Your task to perform on an android device: Open wifi settings Image 0: 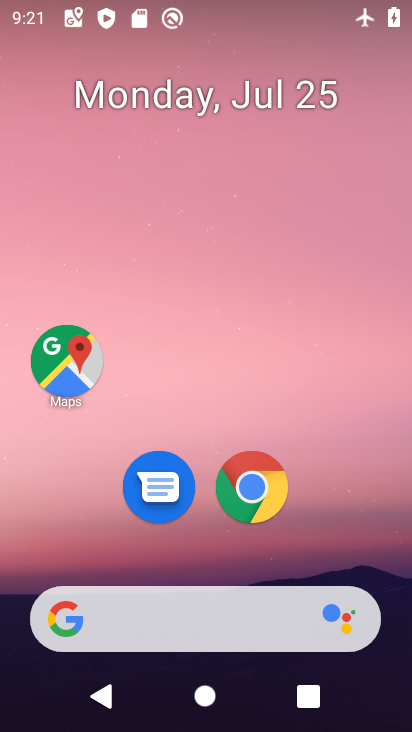
Step 0: drag from (178, 17) to (145, 612)
Your task to perform on an android device: Open wifi settings Image 1: 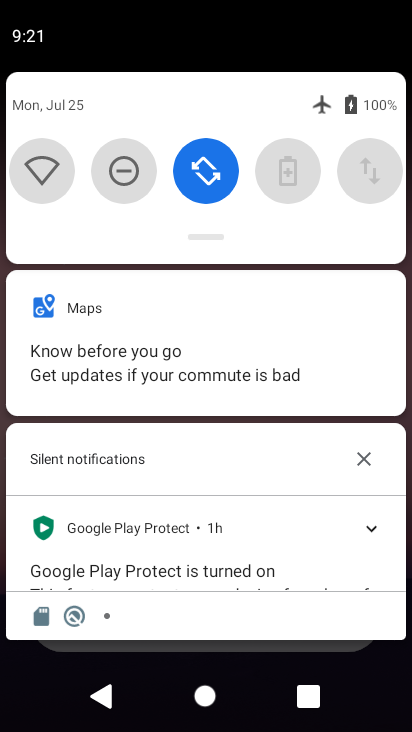
Step 1: click (44, 170)
Your task to perform on an android device: Open wifi settings Image 2: 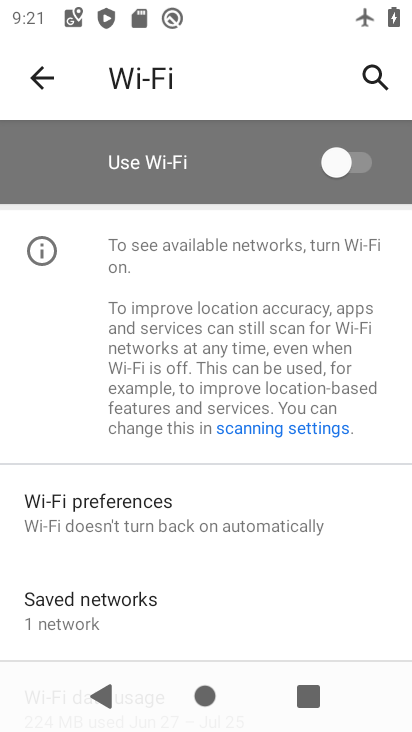
Step 2: task complete